Your task to perform on an android device: toggle priority inbox in the gmail app Image 0: 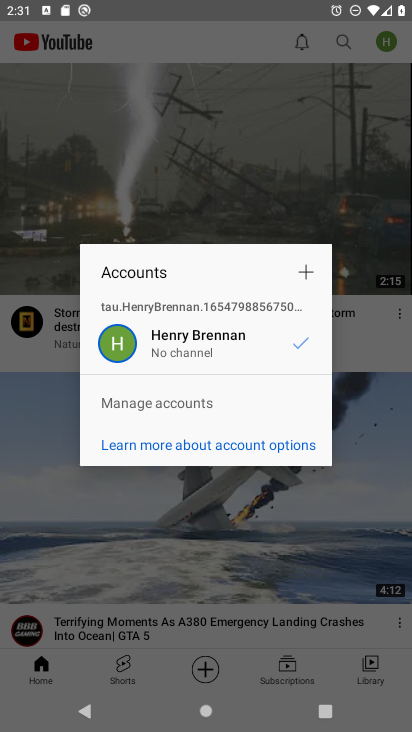
Step 0: press home button
Your task to perform on an android device: toggle priority inbox in the gmail app Image 1: 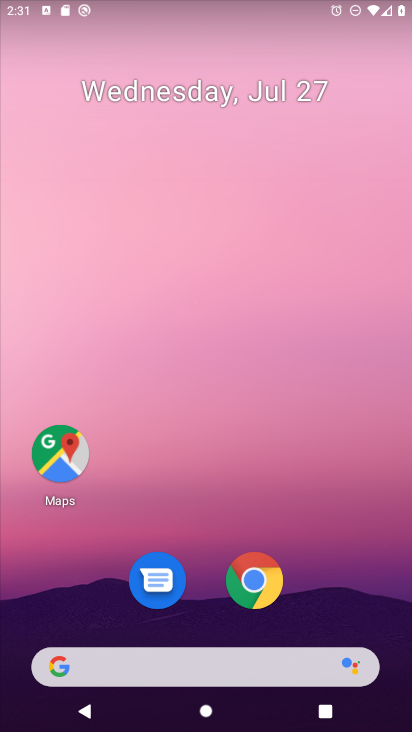
Step 1: drag from (288, 683) to (283, 280)
Your task to perform on an android device: toggle priority inbox in the gmail app Image 2: 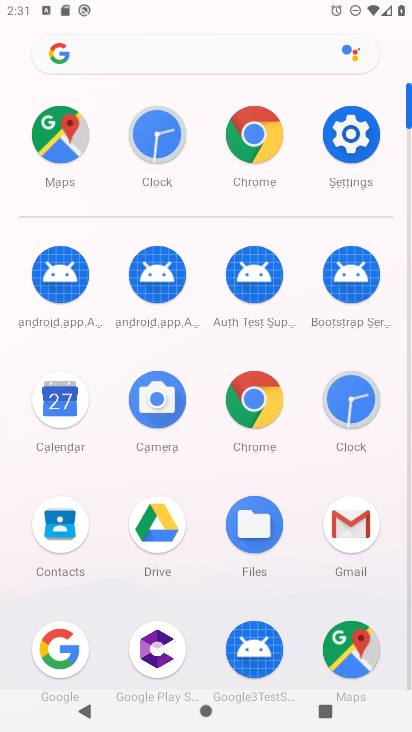
Step 2: click (341, 547)
Your task to perform on an android device: toggle priority inbox in the gmail app Image 3: 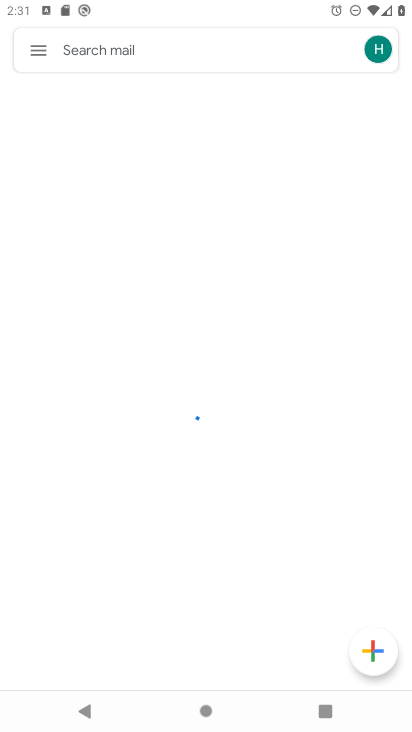
Step 3: click (33, 62)
Your task to perform on an android device: toggle priority inbox in the gmail app Image 4: 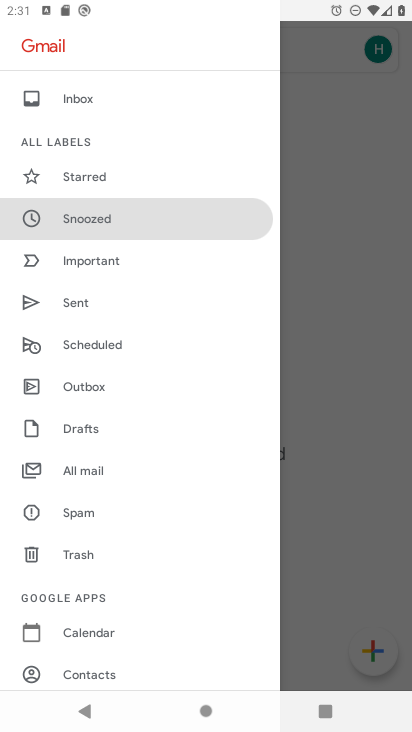
Step 4: drag from (88, 637) to (141, 550)
Your task to perform on an android device: toggle priority inbox in the gmail app Image 5: 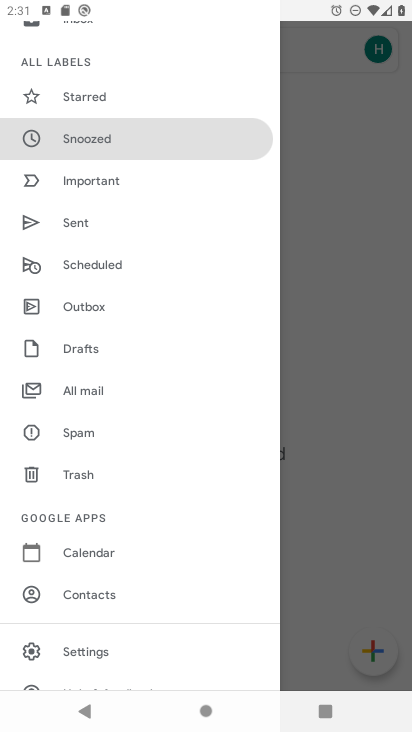
Step 5: click (100, 657)
Your task to perform on an android device: toggle priority inbox in the gmail app Image 6: 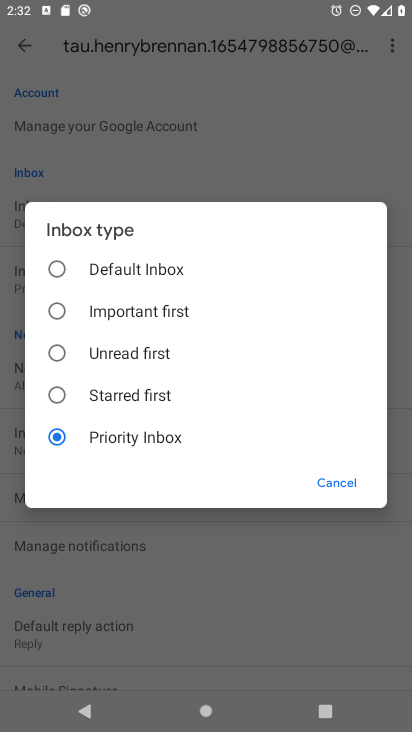
Step 6: task complete